Your task to perform on an android device: toggle javascript in the chrome app Image 0: 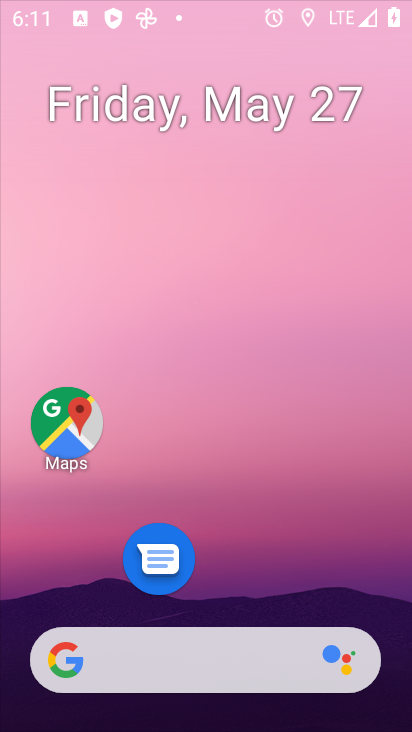
Step 0: drag from (274, 596) to (290, 135)
Your task to perform on an android device: toggle javascript in the chrome app Image 1: 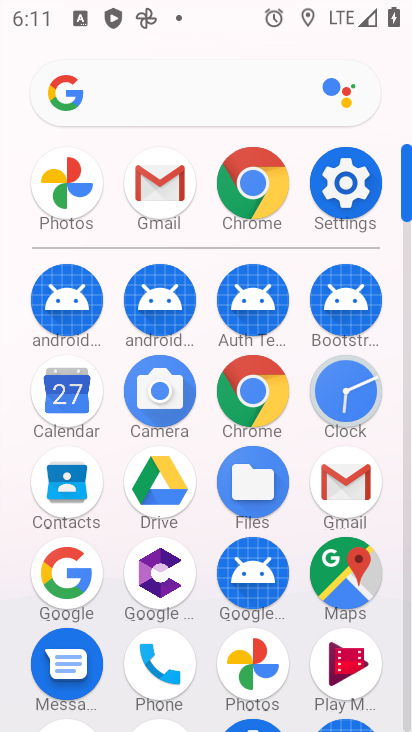
Step 1: click (256, 409)
Your task to perform on an android device: toggle javascript in the chrome app Image 2: 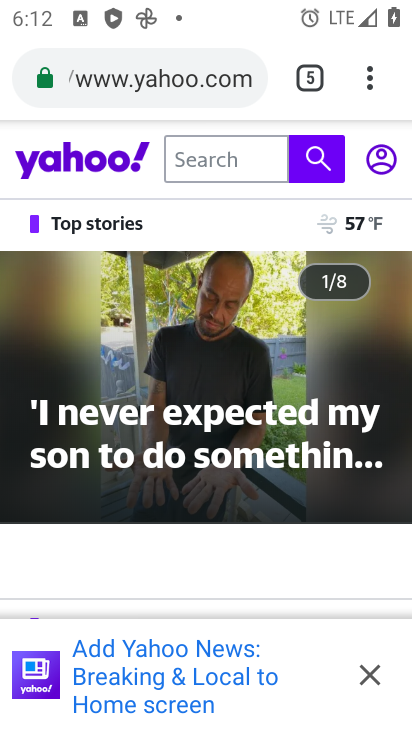
Step 2: drag from (368, 75) to (195, 650)
Your task to perform on an android device: toggle javascript in the chrome app Image 3: 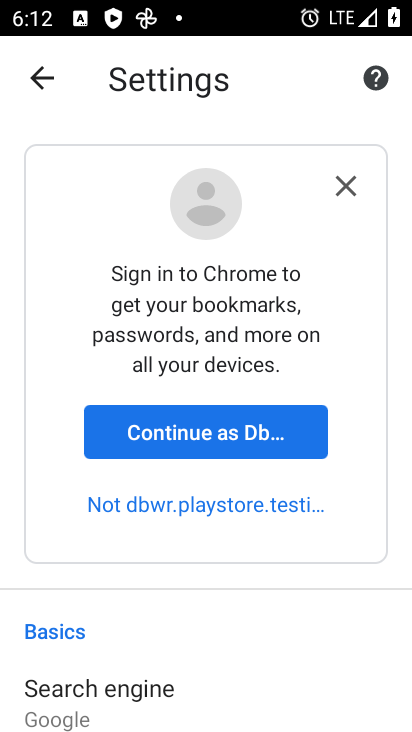
Step 3: drag from (295, 639) to (398, 61)
Your task to perform on an android device: toggle javascript in the chrome app Image 4: 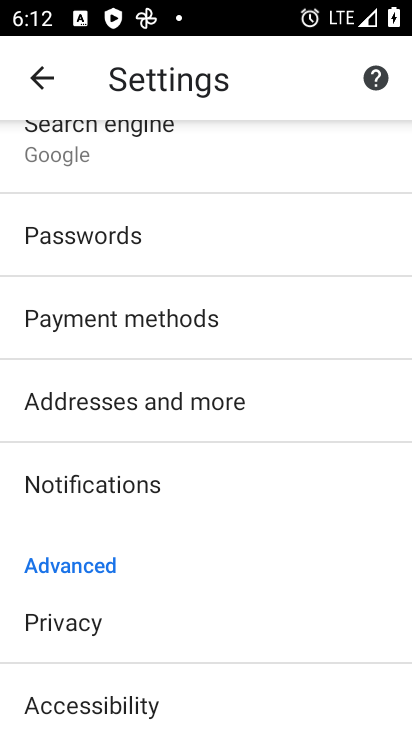
Step 4: drag from (334, 665) to (346, 244)
Your task to perform on an android device: toggle javascript in the chrome app Image 5: 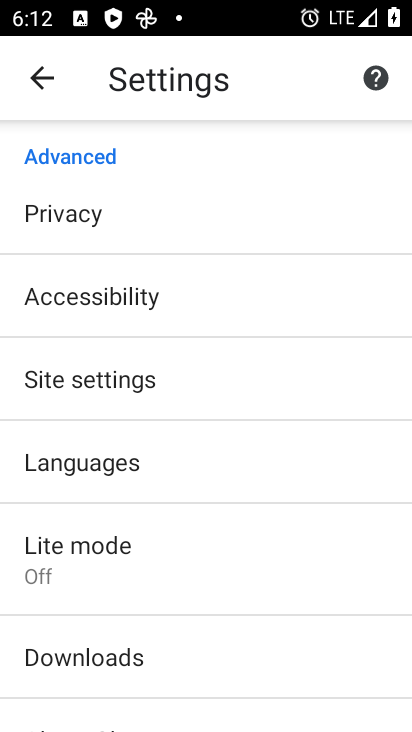
Step 5: click (198, 389)
Your task to perform on an android device: toggle javascript in the chrome app Image 6: 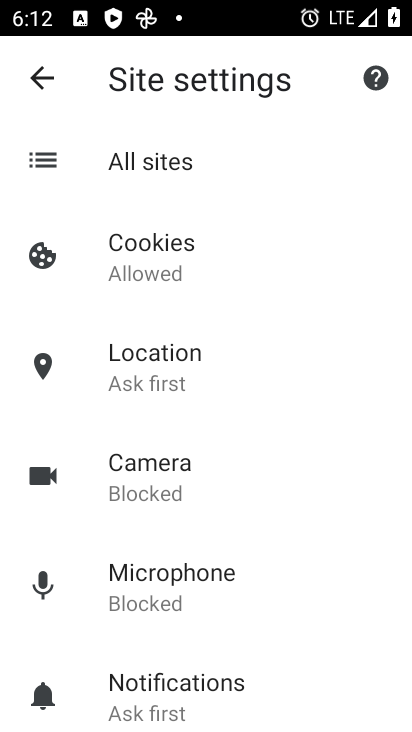
Step 6: drag from (224, 636) to (233, 243)
Your task to perform on an android device: toggle javascript in the chrome app Image 7: 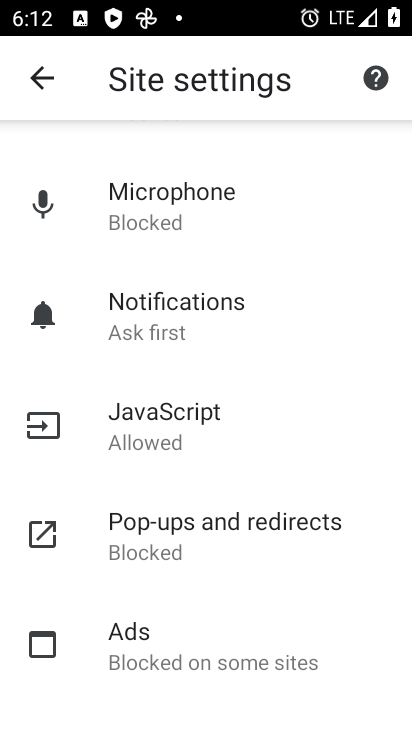
Step 7: click (230, 435)
Your task to perform on an android device: toggle javascript in the chrome app Image 8: 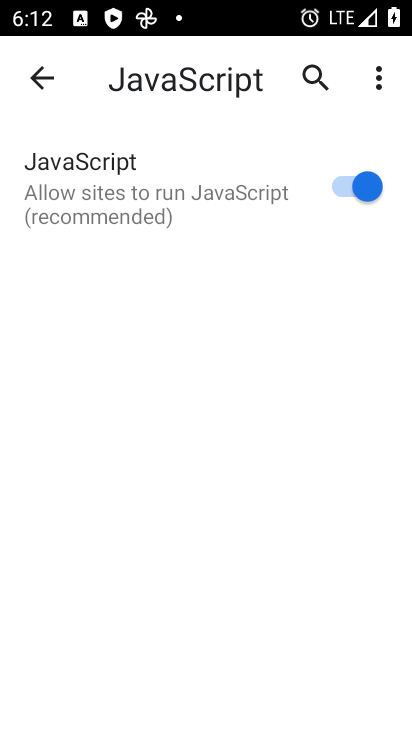
Step 8: click (336, 185)
Your task to perform on an android device: toggle javascript in the chrome app Image 9: 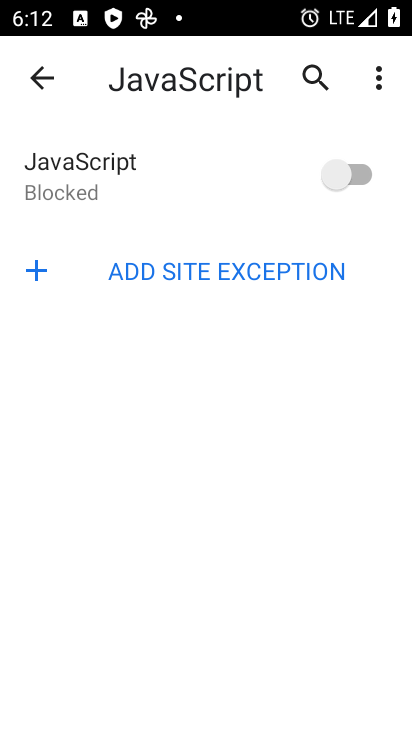
Step 9: task complete